Your task to perform on an android device: toggle priority inbox in the gmail app Image 0: 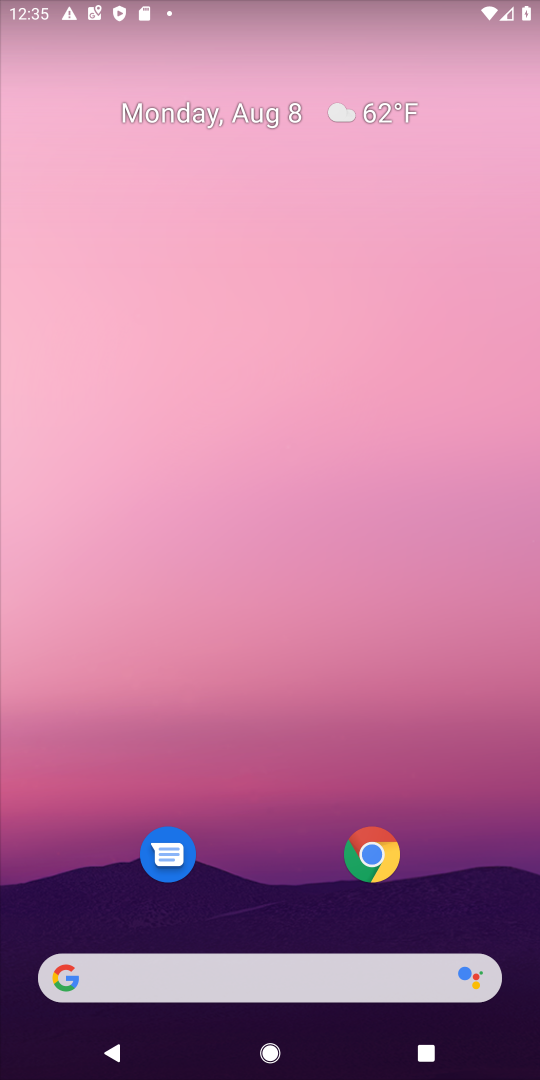
Step 0: drag from (273, 477) to (215, 15)
Your task to perform on an android device: toggle priority inbox in the gmail app Image 1: 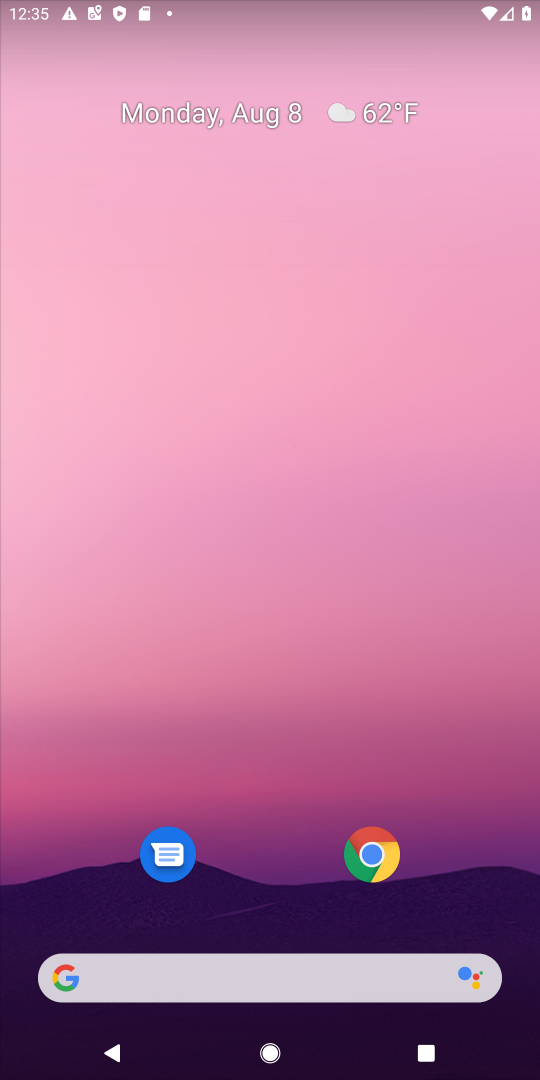
Step 1: drag from (260, 897) to (322, 240)
Your task to perform on an android device: toggle priority inbox in the gmail app Image 2: 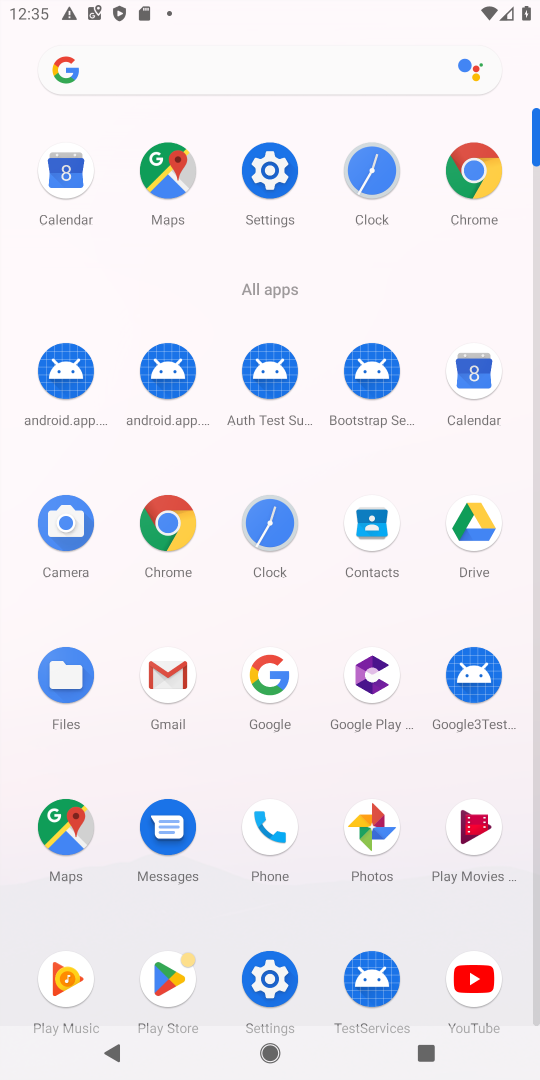
Step 2: click (171, 680)
Your task to perform on an android device: toggle priority inbox in the gmail app Image 3: 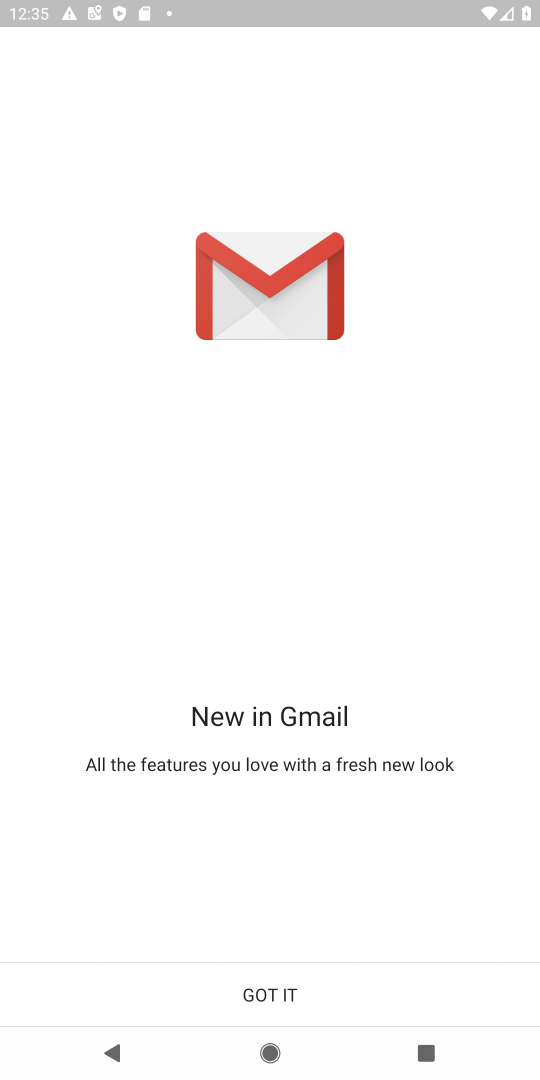
Step 3: click (284, 993)
Your task to perform on an android device: toggle priority inbox in the gmail app Image 4: 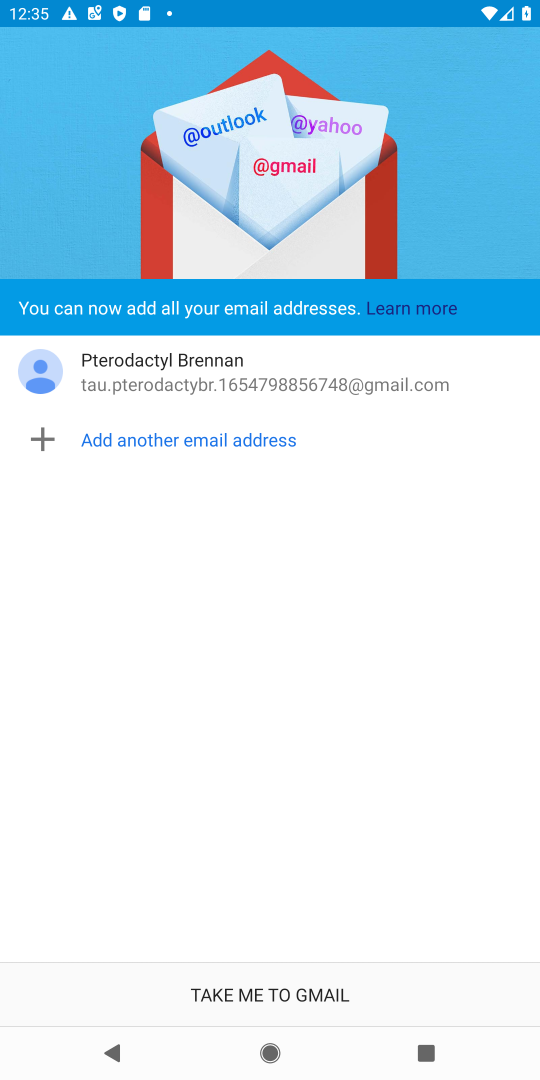
Step 4: click (284, 993)
Your task to perform on an android device: toggle priority inbox in the gmail app Image 5: 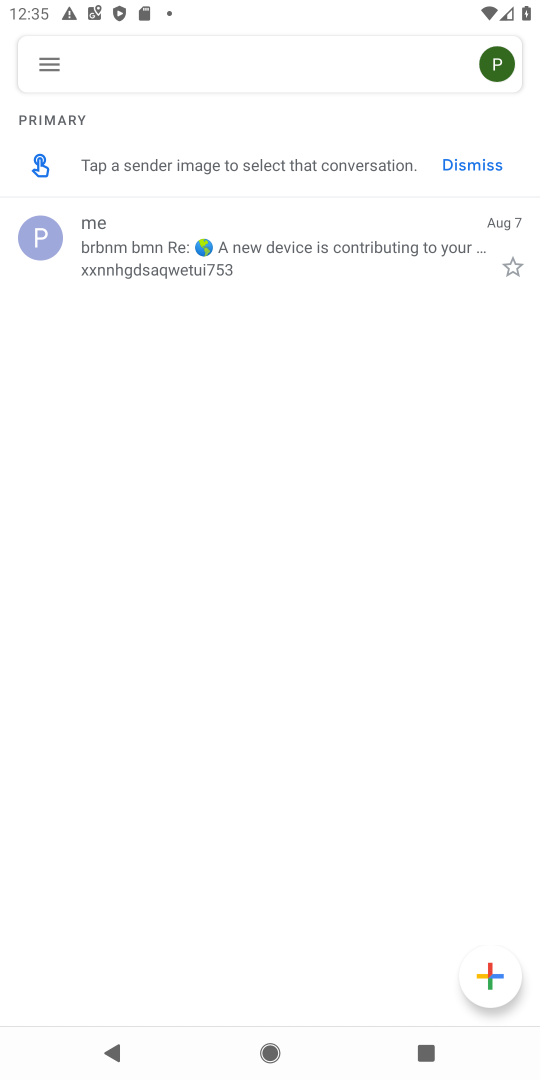
Step 5: click (53, 60)
Your task to perform on an android device: toggle priority inbox in the gmail app Image 6: 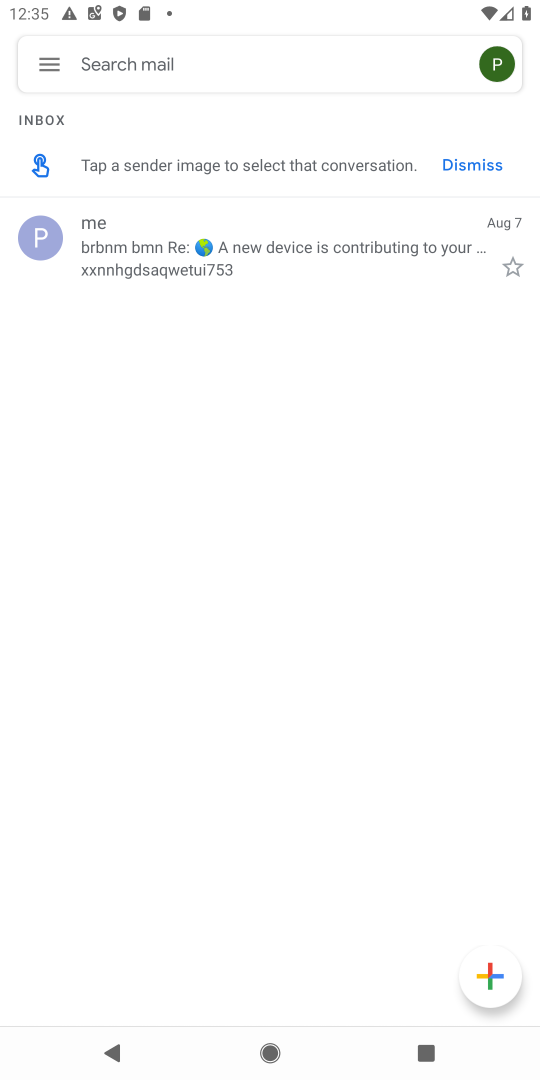
Step 6: click (51, 56)
Your task to perform on an android device: toggle priority inbox in the gmail app Image 7: 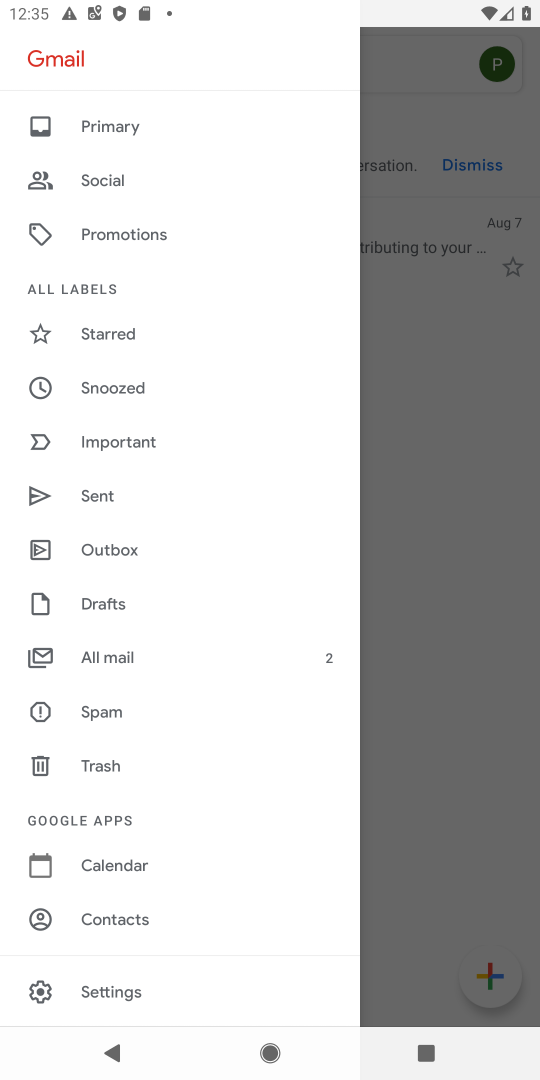
Step 7: click (123, 986)
Your task to perform on an android device: toggle priority inbox in the gmail app Image 8: 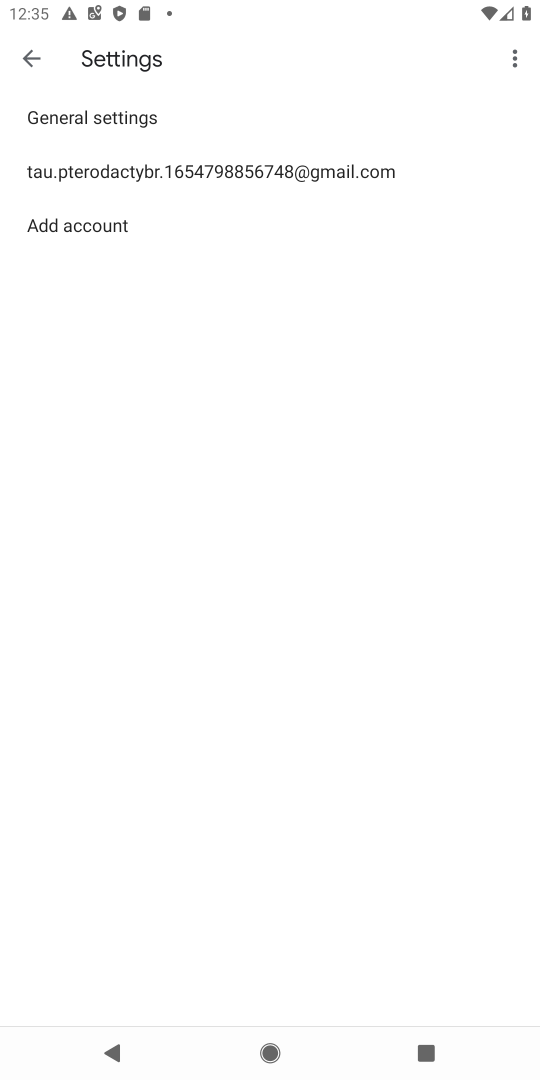
Step 8: click (185, 170)
Your task to perform on an android device: toggle priority inbox in the gmail app Image 9: 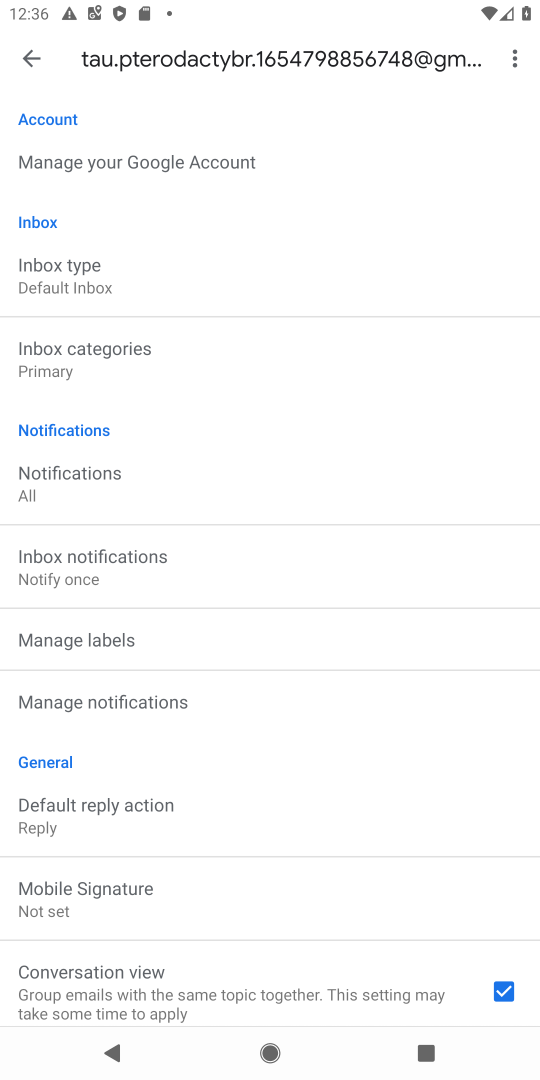
Step 9: click (35, 277)
Your task to perform on an android device: toggle priority inbox in the gmail app Image 10: 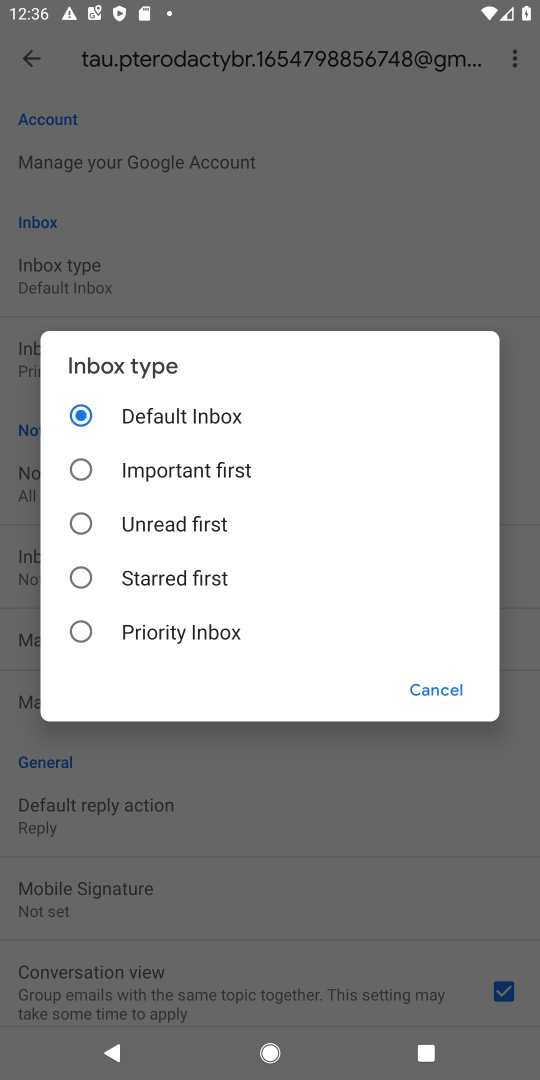
Step 10: click (72, 632)
Your task to perform on an android device: toggle priority inbox in the gmail app Image 11: 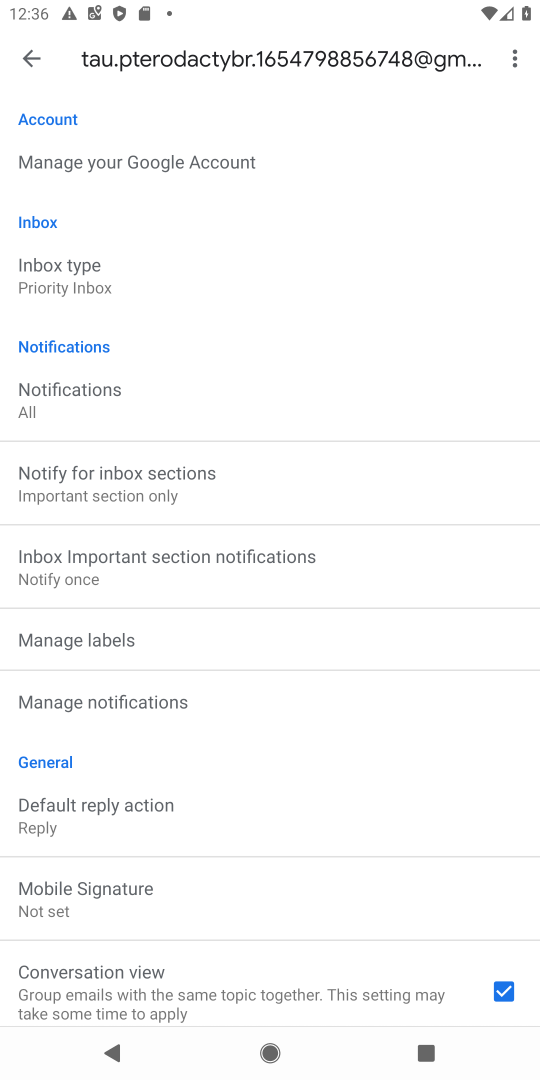
Step 11: task complete